Your task to perform on an android device: visit the assistant section in the google photos Image 0: 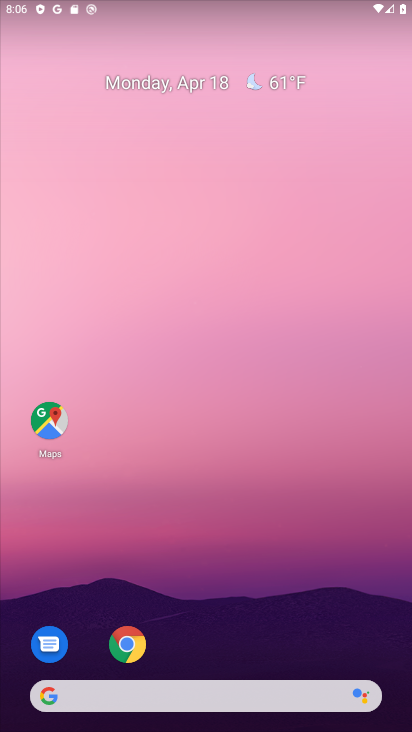
Step 0: drag from (234, 679) to (190, 146)
Your task to perform on an android device: visit the assistant section in the google photos Image 1: 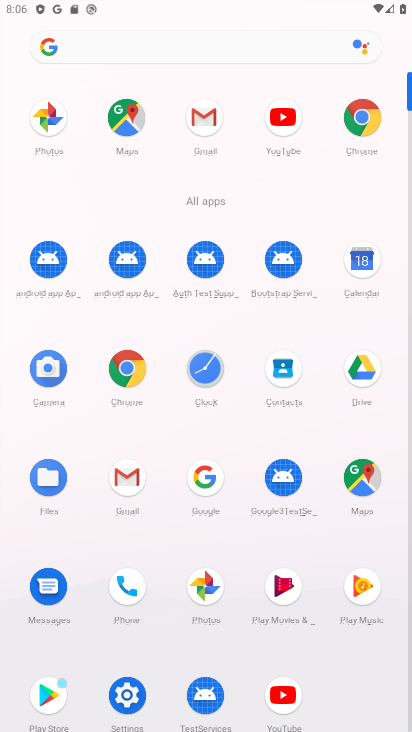
Step 1: click (206, 597)
Your task to perform on an android device: visit the assistant section in the google photos Image 2: 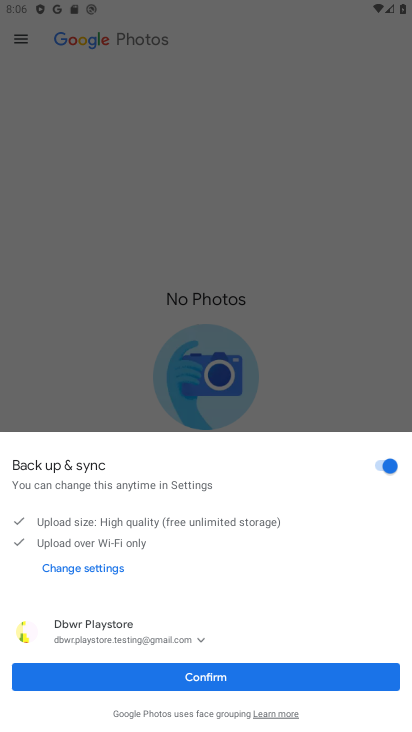
Step 2: click (270, 674)
Your task to perform on an android device: visit the assistant section in the google photos Image 3: 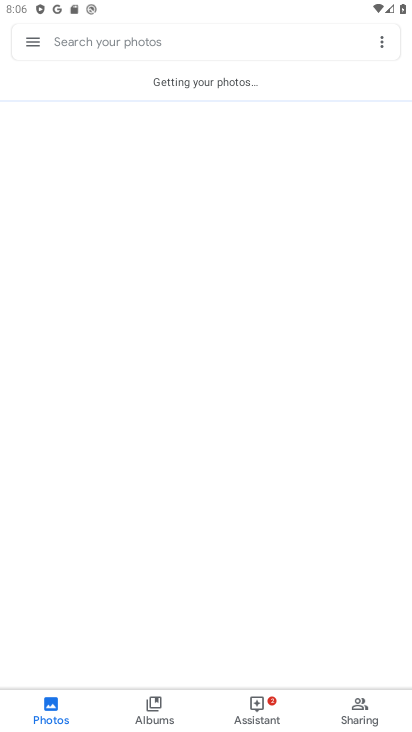
Step 3: click (254, 699)
Your task to perform on an android device: visit the assistant section in the google photos Image 4: 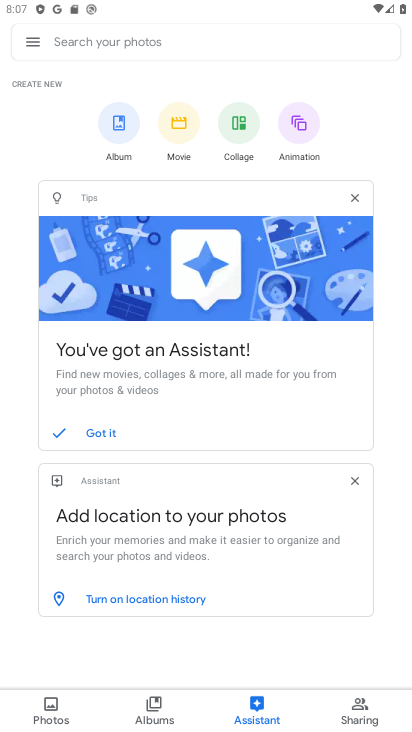
Step 4: task complete